Your task to perform on an android device: Open battery settings Image 0: 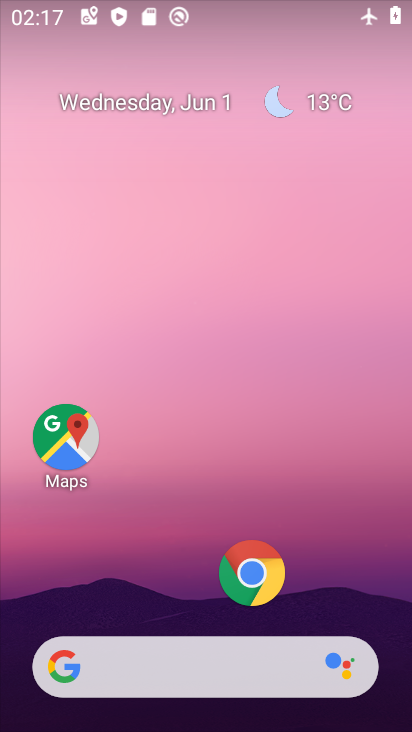
Step 0: drag from (260, 624) to (254, 54)
Your task to perform on an android device: Open battery settings Image 1: 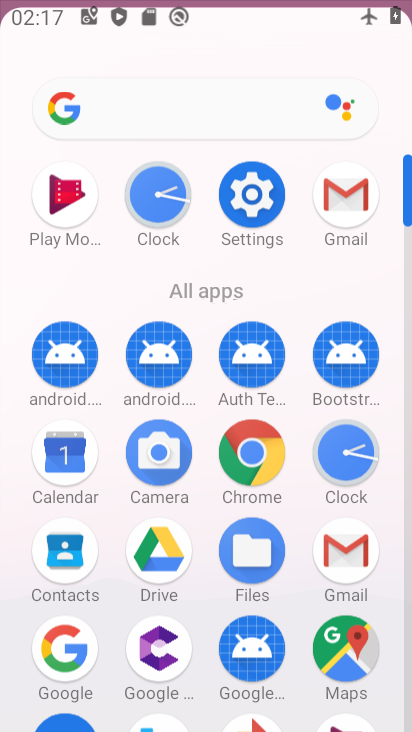
Step 1: click (263, 183)
Your task to perform on an android device: Open battery settings Image 2: 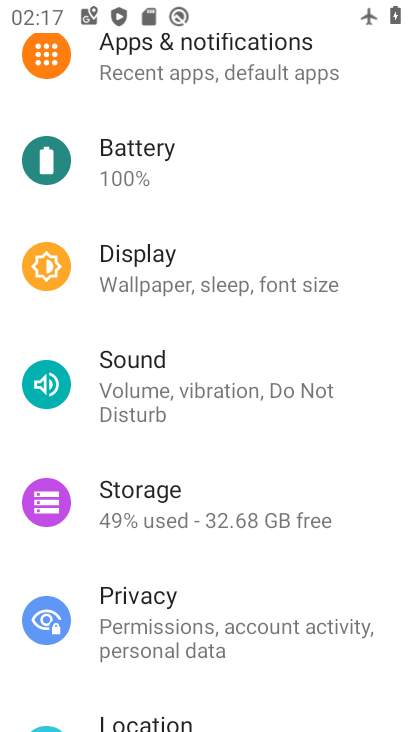
Step 2: click (126, 178)
Your task to perform on an android device: Open battery settings Image 3: 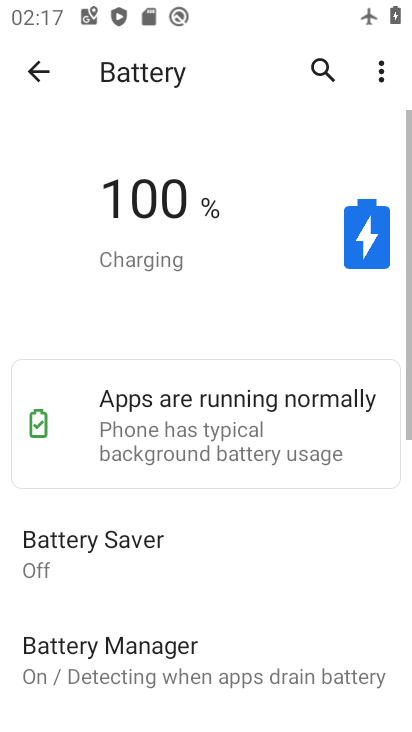
Step 3: task complete